Your task to perform on an android device: Open Google Image 0: 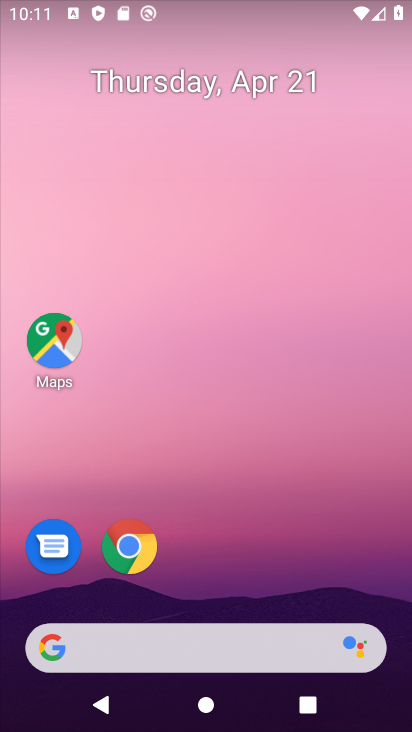
Step 0: click (127, 544)
Your task to perform on an android device: Open Google Image 1: 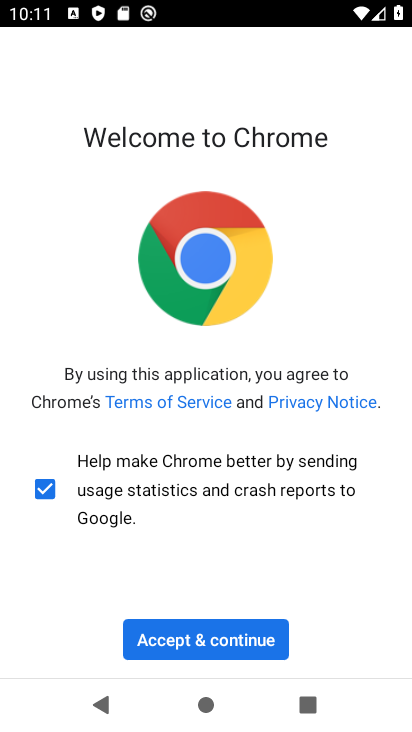
Step 1: click (210, 633)
Your task to perform on an android device: Open Google Image 2: 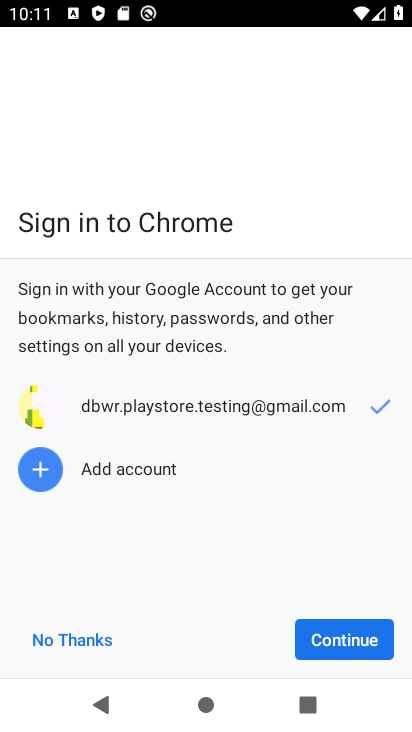
Step 2: click (346, 642)
Your task to perform on an android device: Open Google Image 3: 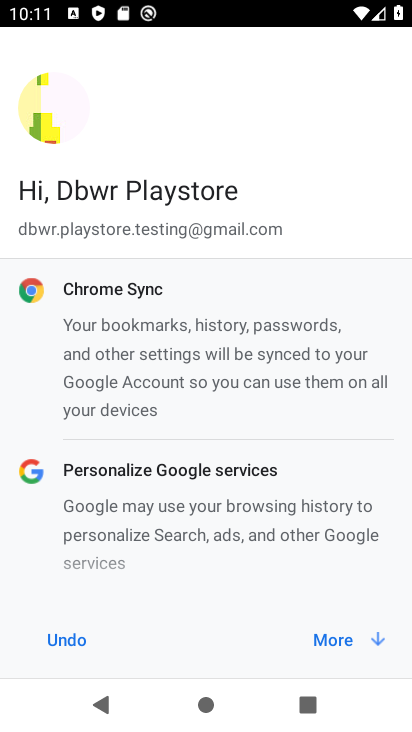
Step 3: click (324, 634)
Your task to perform on an android device: Open Google Image 4: 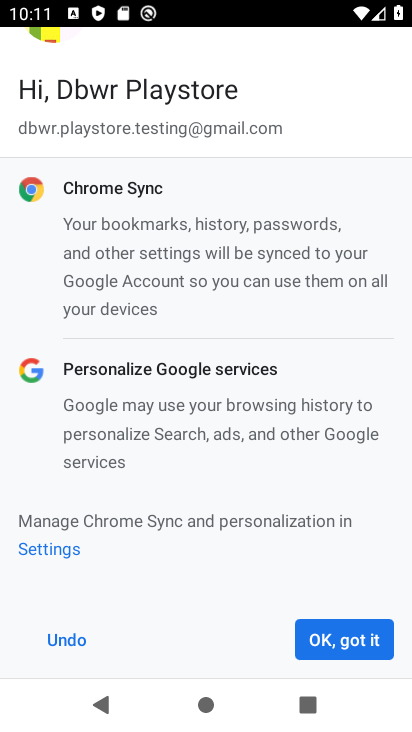
Step 4: click (342, 646)
Your task to perform on an android device: Open Google Image 5: 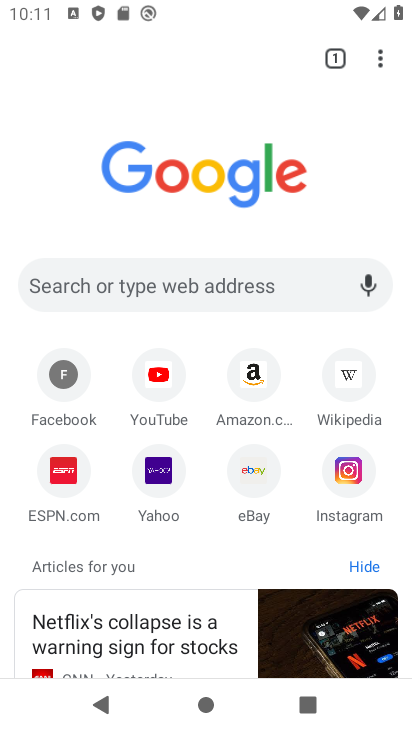
Step 5: task complete